Your task to perform on an android device: How do I get to the nearest electronics store? Image 0: 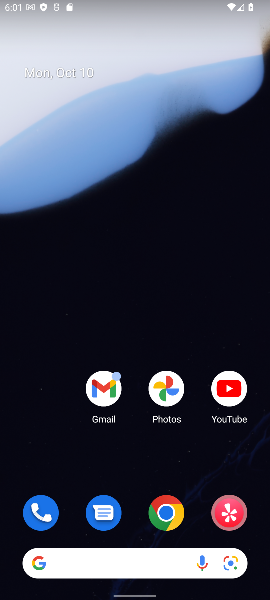
Step 0: click (96, 555)
Your task to perform on an android device: How do I get to the nearest electronics store? Image 1: 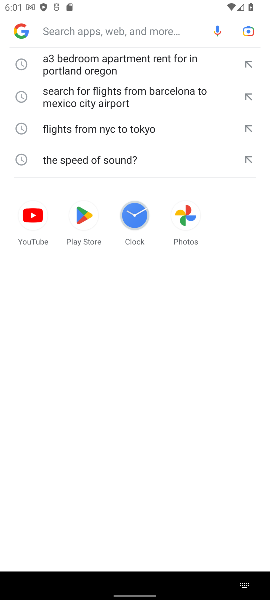
Step 1: type "nearest electronics store"
Your task to perform on an android device: How do I get to the nearest electronics store? Image 2: 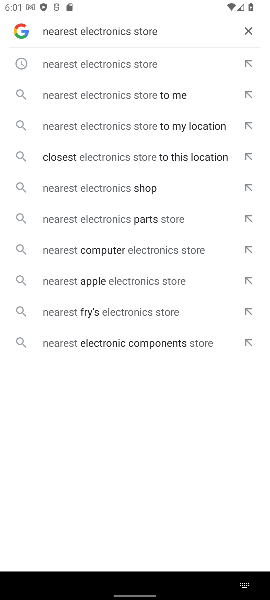
Step 2: click (69, 72)
Your task to perform on an android device: How do I get to the nearest electronics store? Image 3: 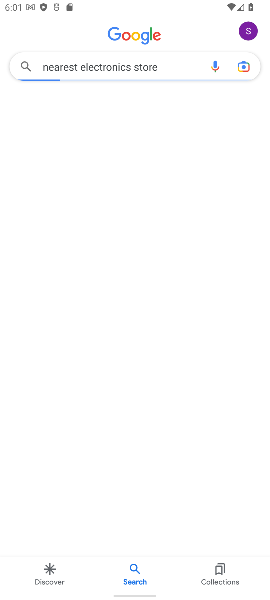
Step 3: task complete